Your task to perform on an android device: turn on javascript in the chrome app Image 0: 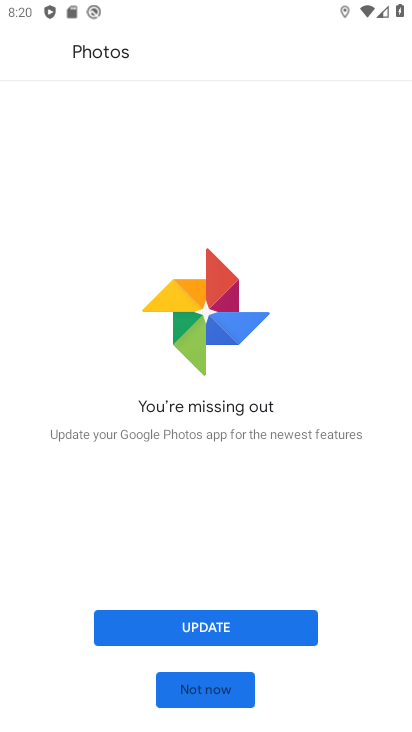
Step 0: press back button
Your task to perform on an android device: turn on javascript in the chrome app Image 1: 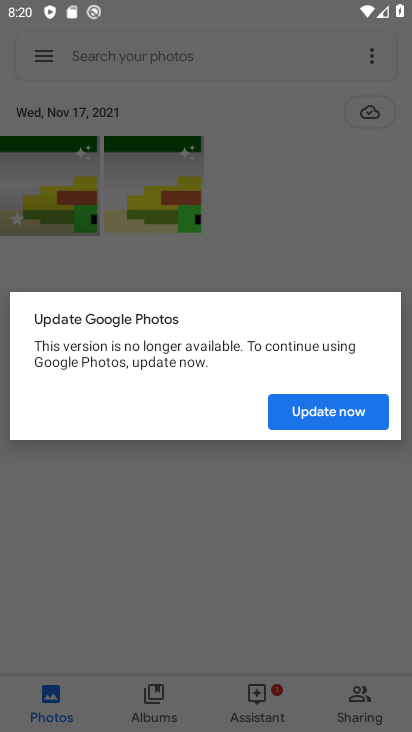
Step 1: press home button
Your task to perform on an android device: turn on javascript in the chrome app Image 2: 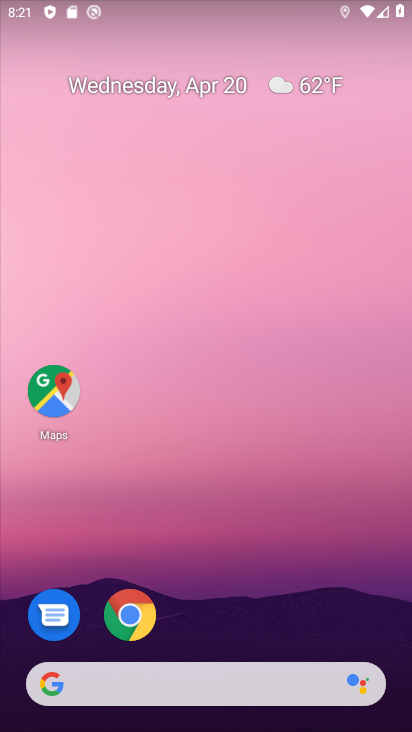
Step 2: click (125, 613)
Your task to perform on an android device: turn on javascript in the chrome app Image 3: 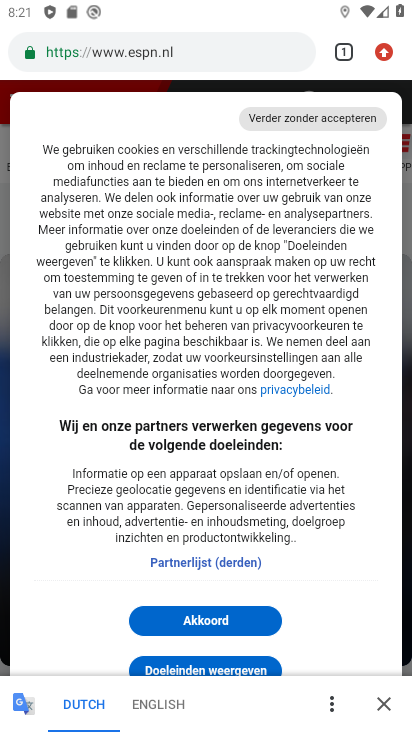
Step 3: click (380, 50)
Your task to perform on an android device: turn on javascript in the chrome app Image 4: 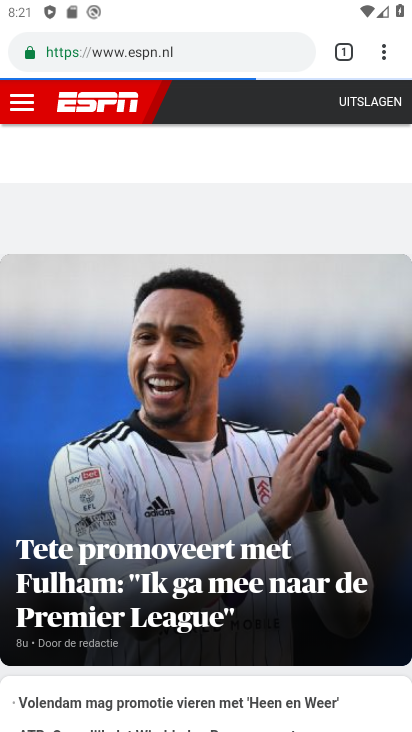
Step 4: click (382, 54)
Your task to perform on an android device: turn on javascript in the chrome app Image 5: 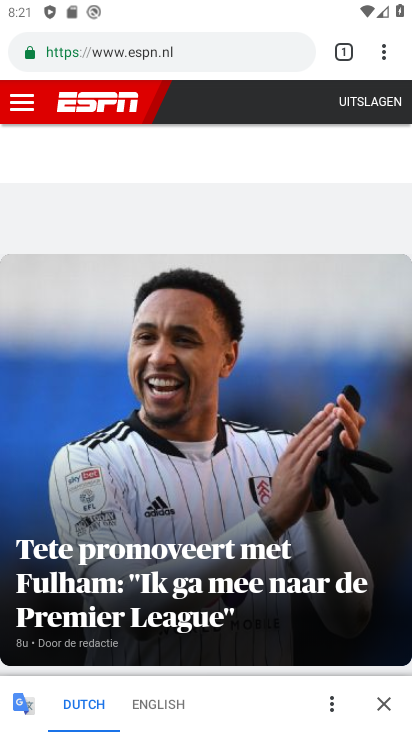
Step 5: click (382, 55)
Your task to perform on an android device: turn on javascript in the chrome app Image 6: 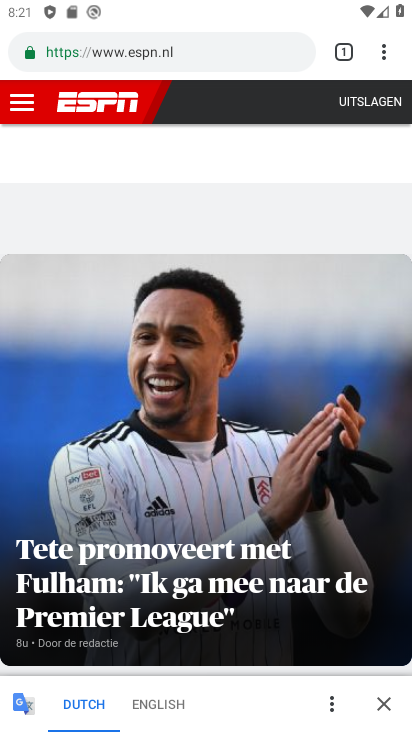
Step 6: click (382, 55)
Your task to perform on an android device: turn on javascript in the chrome app Image 7: 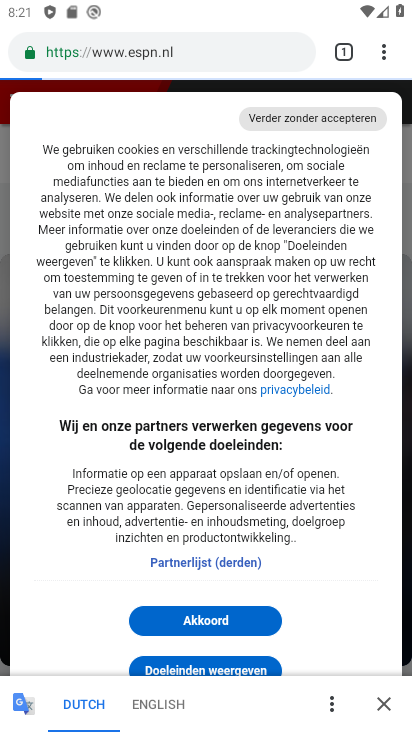
Step 7: click (374, 59)
Your task to perform on an android device: turn on javascript in the chrome app Image 8: 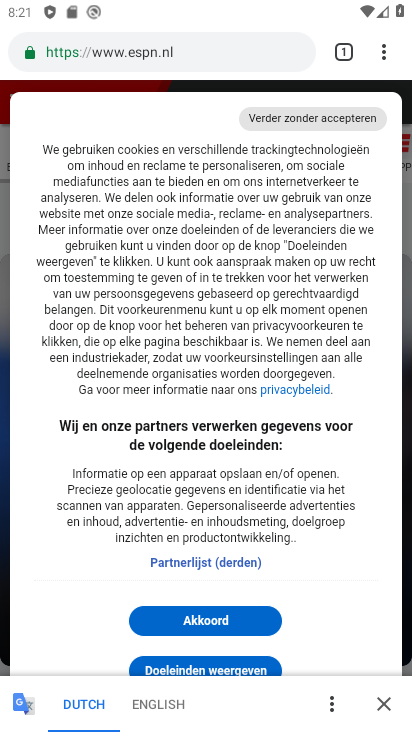
Step 8: click (386, 53)
Your task to perform on an android device: turn on javascript in the chrome app Image 9: 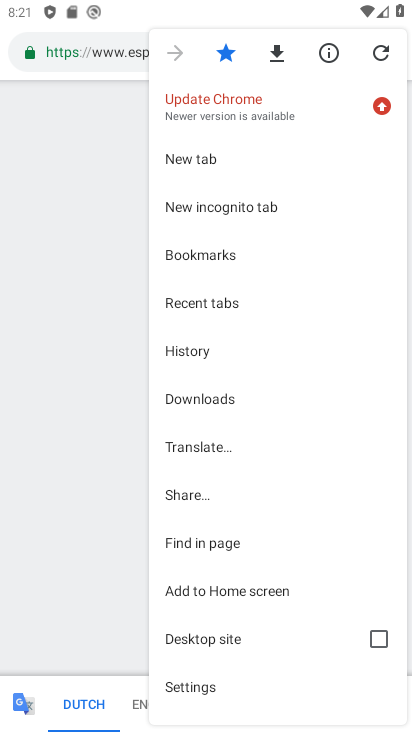
Step 9: click (223, 685)
Your task to perform on an android device: turn on javascript in the chrome app Image 10: 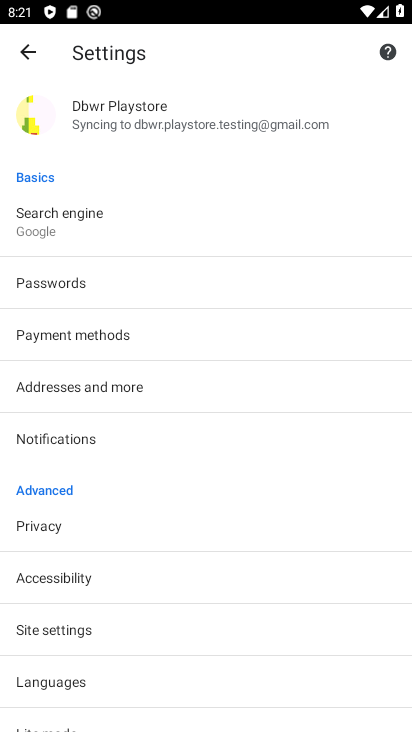
Step 10: click (158, 615)
Your task to perform on an android device: turn on javascript in the chrome app Image 11: 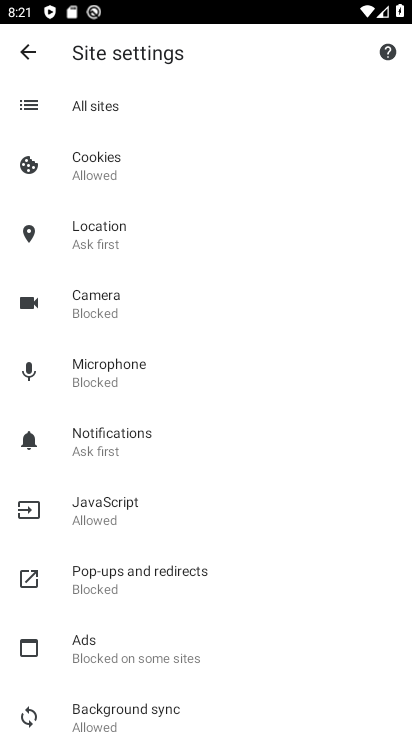
Step 11: click (189, 516)
Your task to perform on an android device: turn on javascript in the chrome app Image 12: 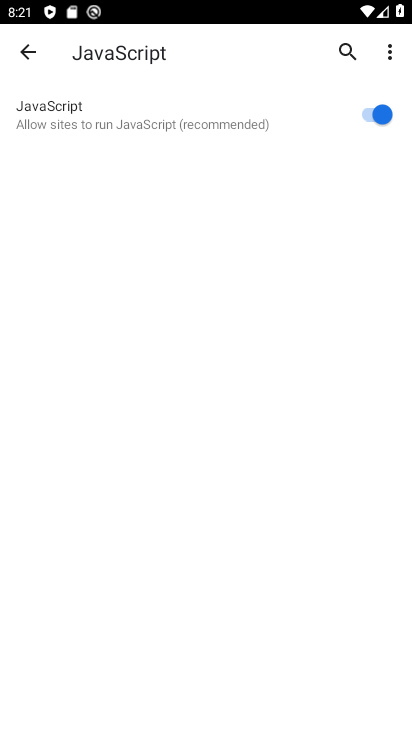
Step 12: task complete